Your task to perform on an android device: Show me productivity apps on the Play Store Image 0: 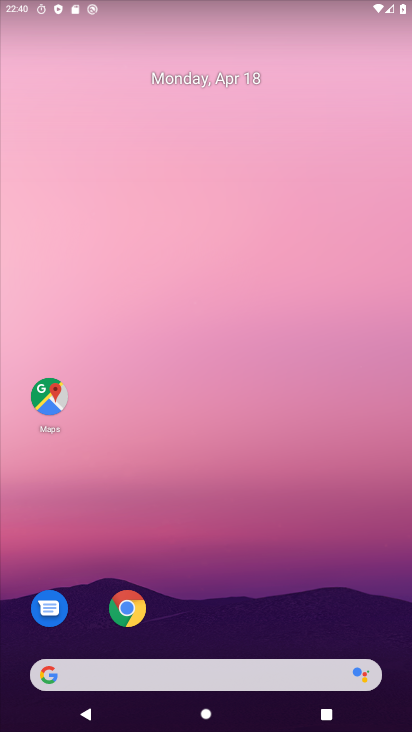
Step 0: drag from (221, 598) to (268, 188)
Your task to perform on an android device: Show me productivity apps on the Play Store Image 1: 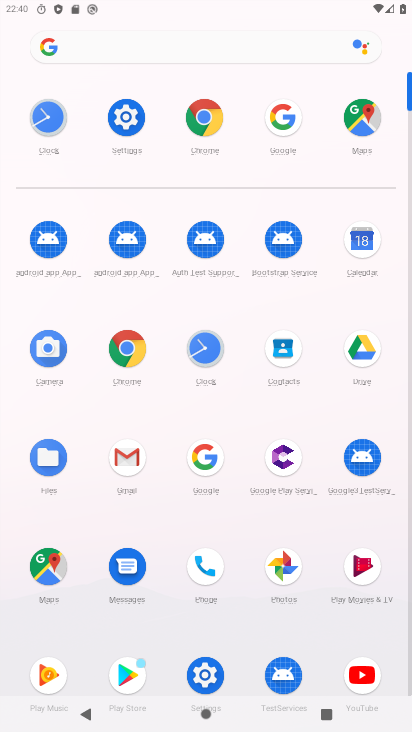
Step 1: click (129, 673)
Your task to perform on an android device: Show me productivity apps on the Play Store Image 2: 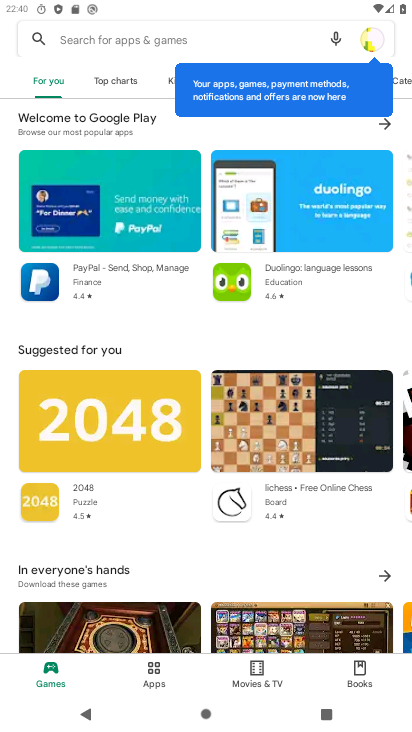
Step 2: drag from (212, 545) to (205, 675)
Your task to perform on an android device: Show me productivity apps on the Play Store Image 3: 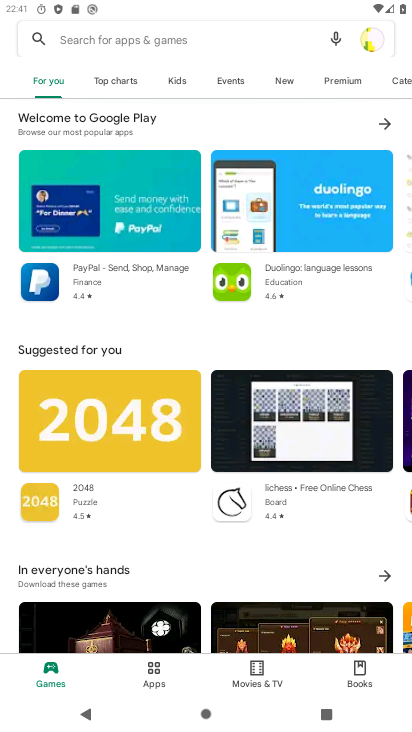
Step 3: drag from (210, 322) to (208, 547)
Your task to perform on an android device: Show me productivity apps on the Play Store Image 4: 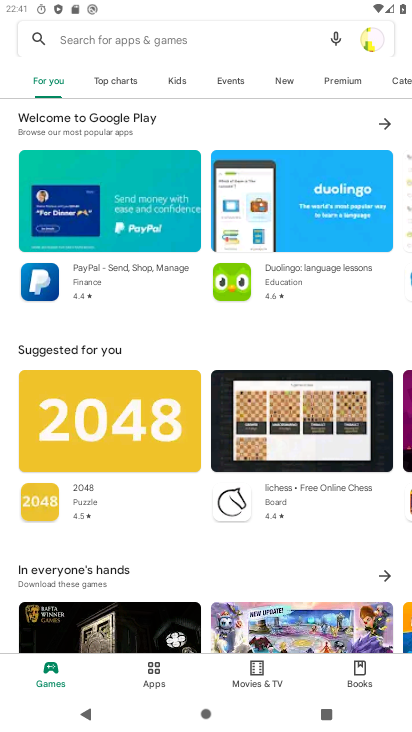
Step 4: click (157, 673)
Your task to perform on an android device: Show me productivity apps on the Play Store Image 5: 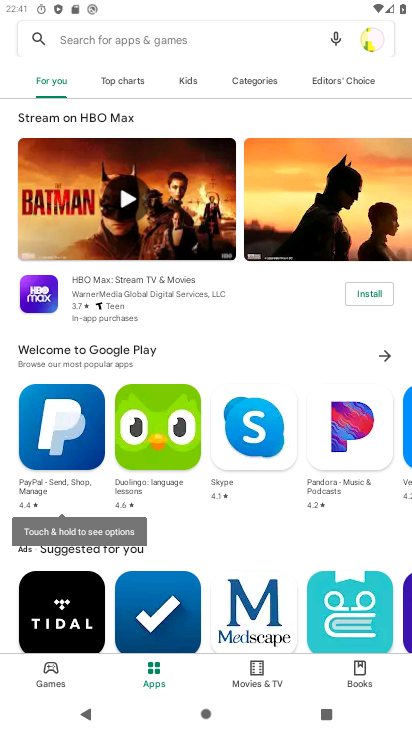
Step 5: task complete